Your task to perform on an android device: change the clock display to digital Image 0: 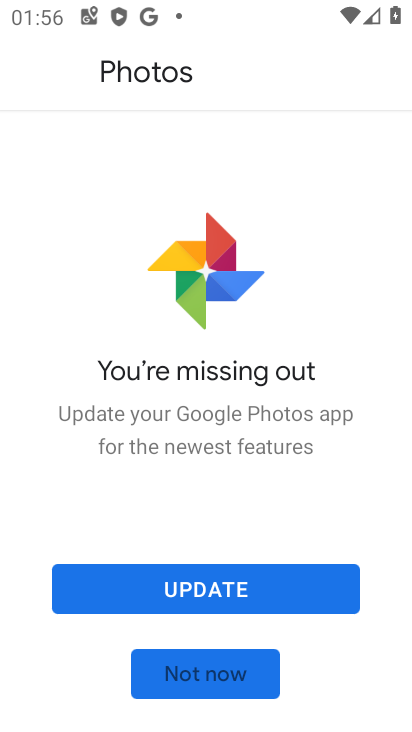
Step 0: press back button
Your task to perform on an android device: change the clock display to digital Image 1: 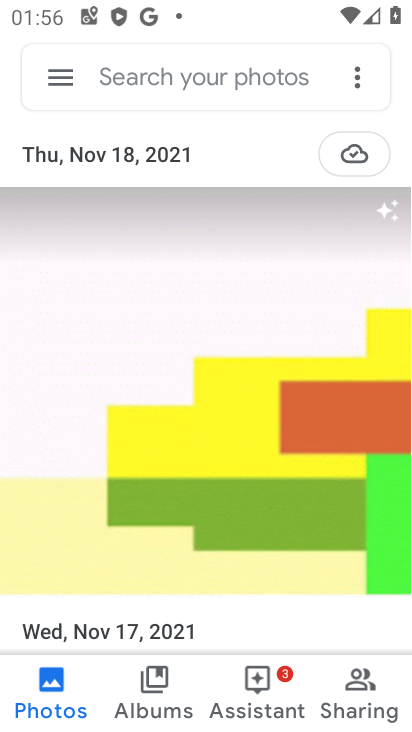
Step 1: press home button
Your task to perform on an android device: change the clock display to digital Image 2: 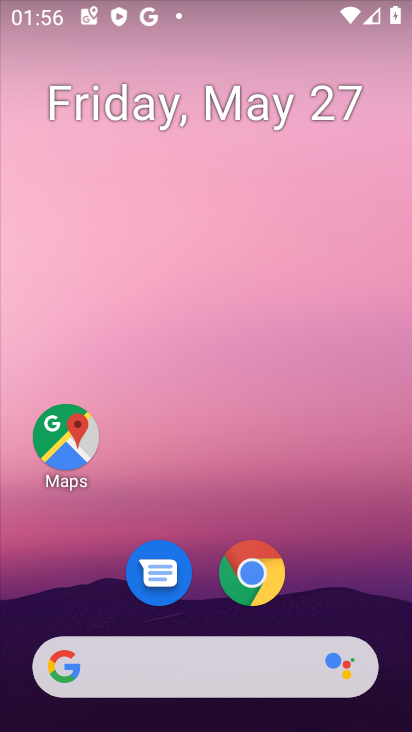
Step 2: drag from (205, 492) to (170, 108)
Your task to perform on an android device: change the clock display to digital Image 3: 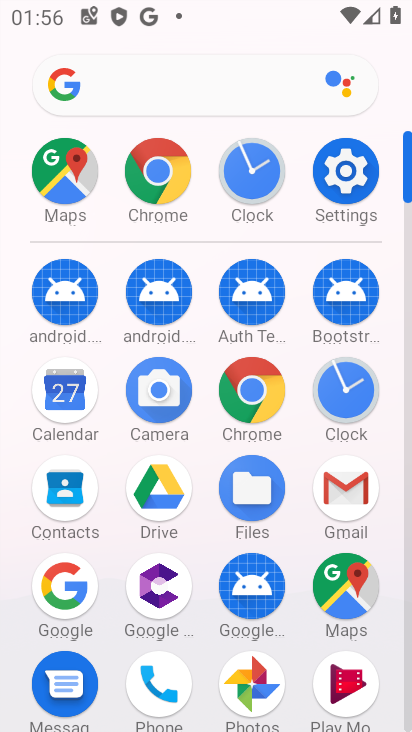
Step 3: click (337, 403)
Your task to perform on an android device: change the clock display to digital Image 4: 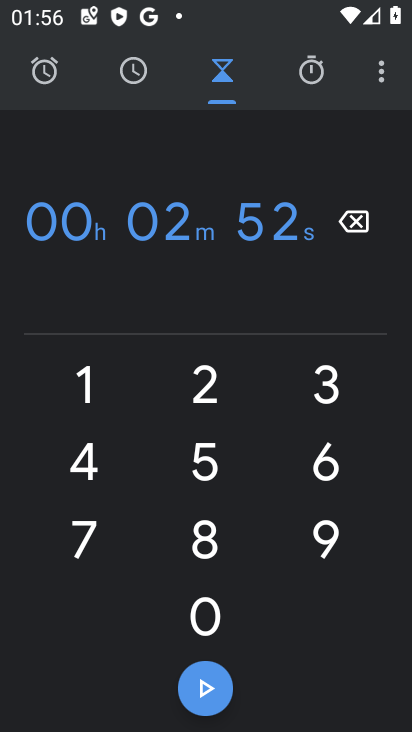
Step 4: click (371, 78)
Your task to perform on an android device: change the clock display to digital Image 5: 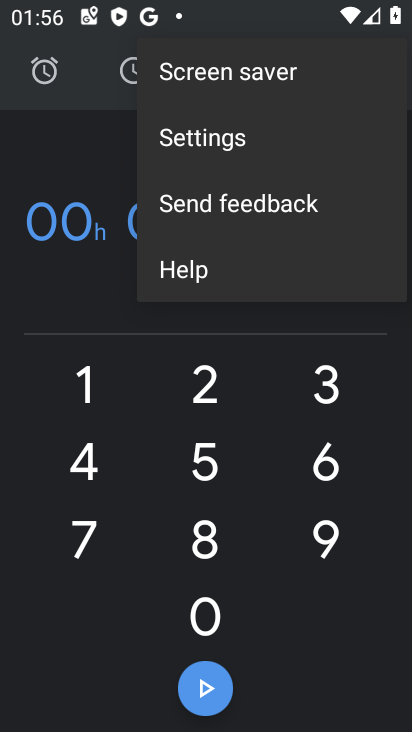
Step 5: click (215, 124)
Your task to perform on an android device: change the clock display to digital Image 6: 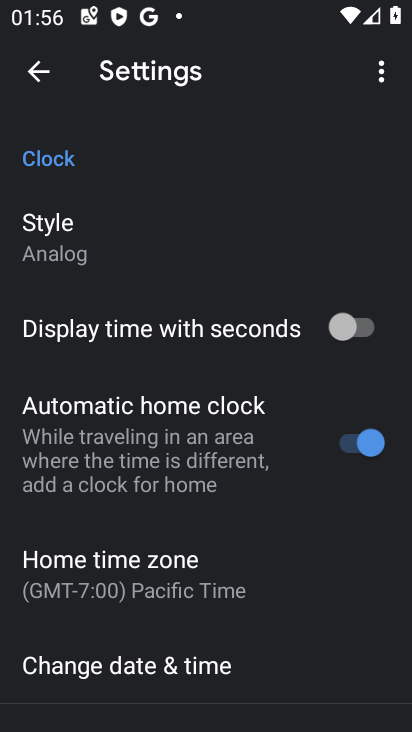
Step 6: click (123, 251)
Your task to perform on an android device: change the clock display to digital Image 7: 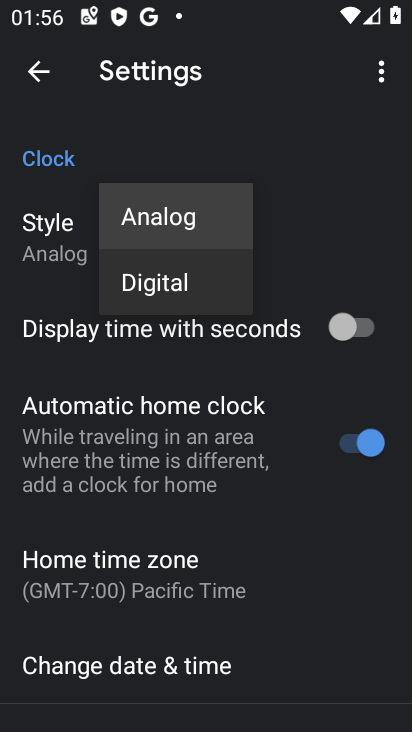
Step 7: click (153, 304)
Your task to perform on an android device: change the clock display to digital Image 8: 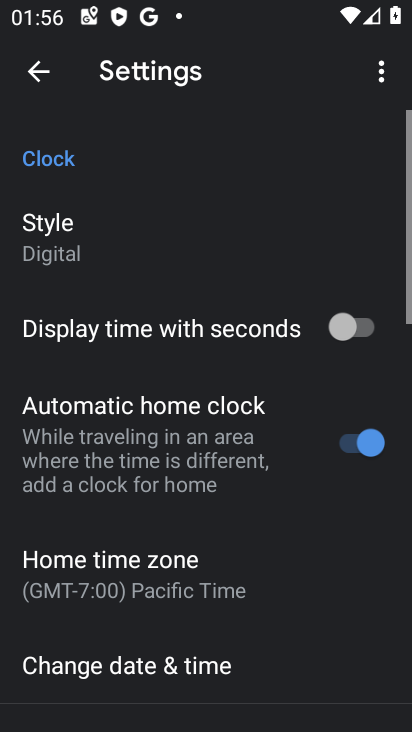
Step 8: task complete